Your task to perform on an android device: change notifications settings Image 0: 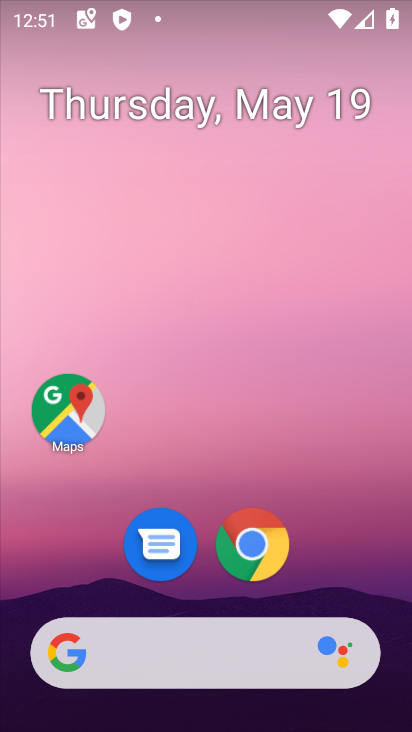
Step 0: drag from (216, 650) to (259, 96)
Your task to perform on an android device: change notifications settings Image 1: 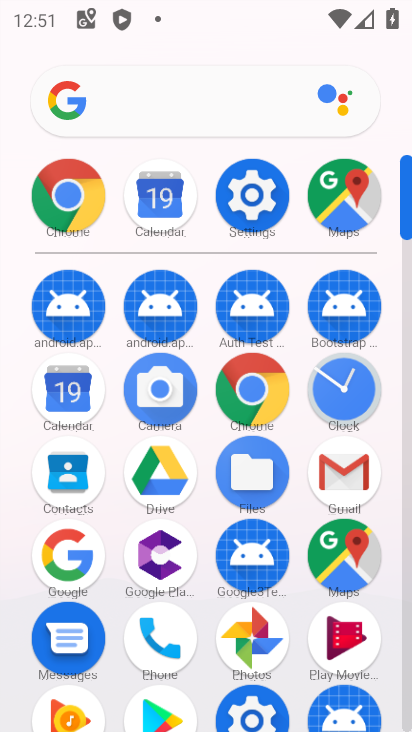
Step 1: click (230, 194)
Your task to perform on an android device: change notifications settings Image 2: 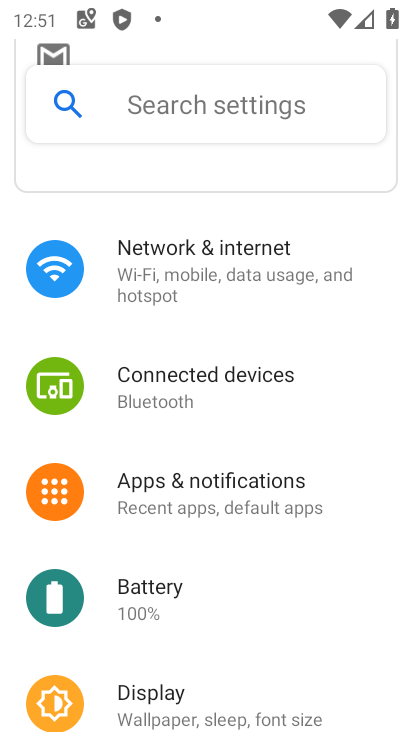
Step 2: click (213, 501)
Your task to perform on an android device: change notifications settings Image 3: 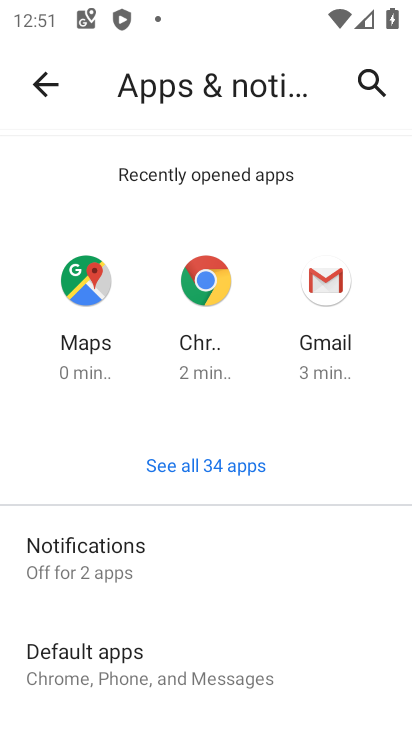
Step 3: drag from (127, 679) to (164, 341)
Your task to perform on an android device: change notifications settings Image 4: 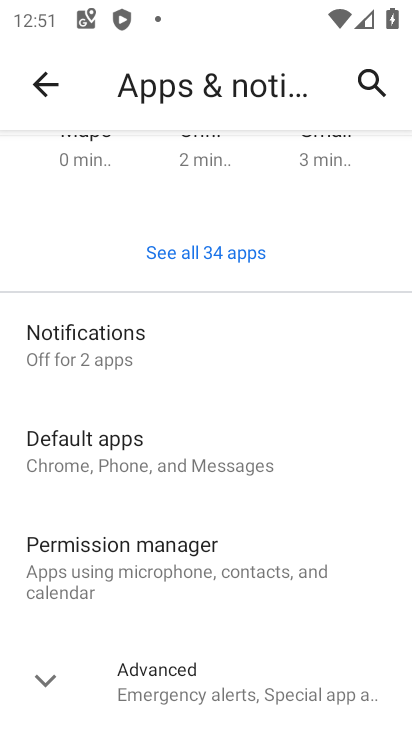
Step 4: click (158, 352)
Your task to perform on an android device: change notifications settings Image 5: 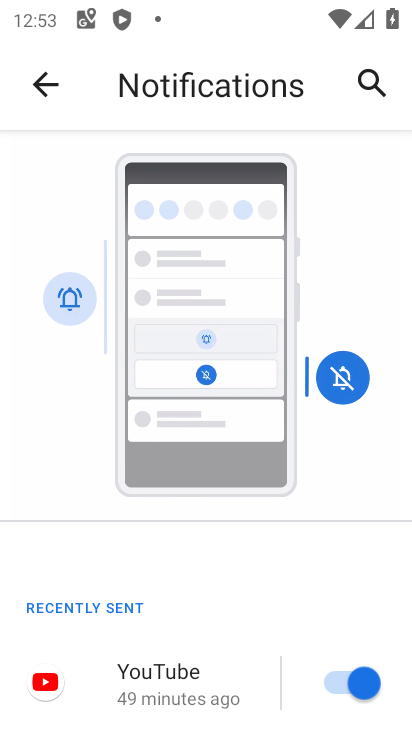
Step 5: drag from (258, 616) to (200, 191)
Your task to perform on an android device: change notifications settings Image 6: 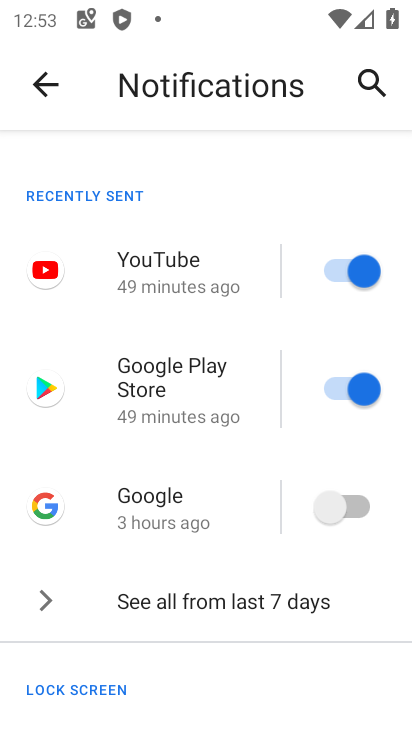
Step 6: click (350, 267)
Your task to perform on an android device: change notifications settings Image 7: 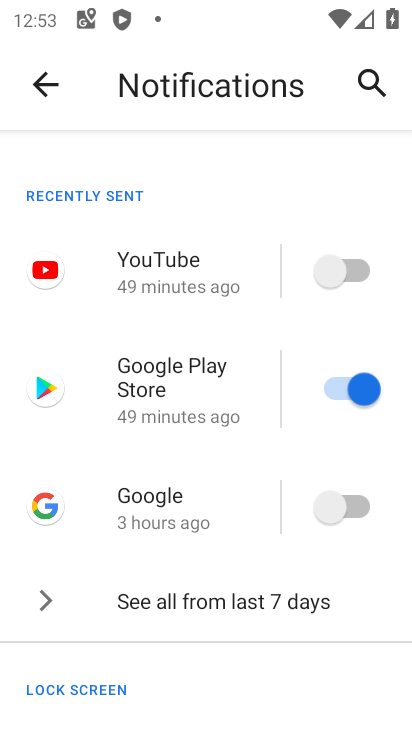
Step 7: click (340, 384)
Your task to perform on an android device: change notifications settings Image 8: 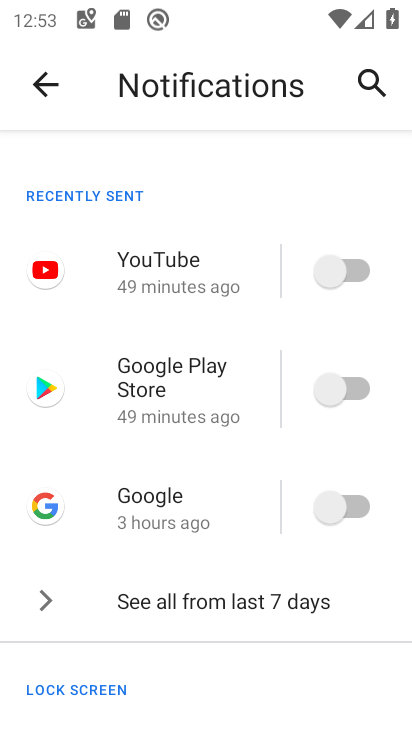
Step 8: task complete